Your task to perform on an android device: Open Chrome and go to settings Image 0: 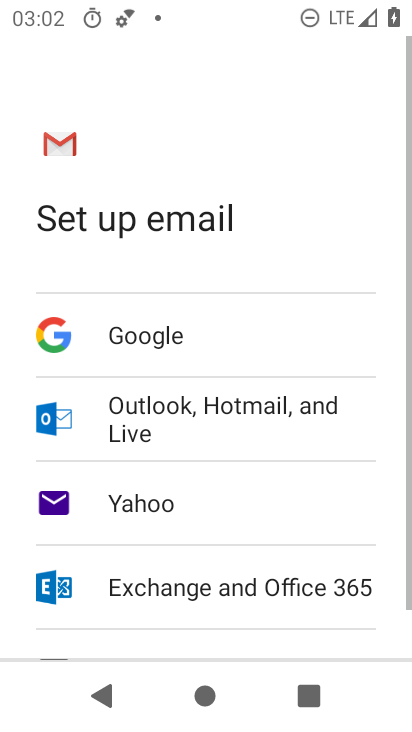
Step 0: press home button
Your task to perform on an android device: Open Chrome and go to settings Image 1: 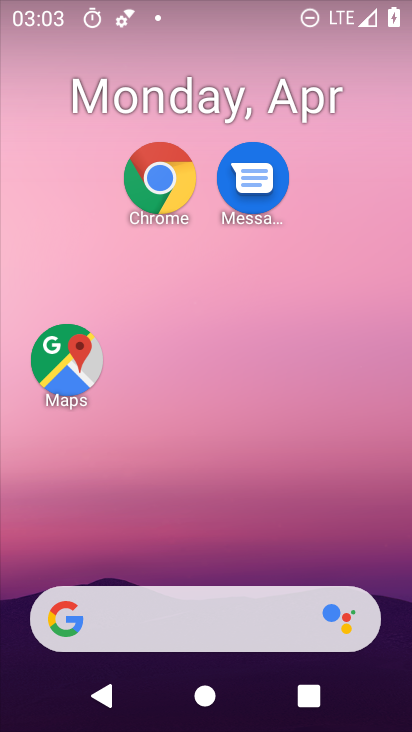
Step 1: drag from (300, 549) to (303, 4)
Your task to perform on an android device: Open Chrome and go to settings Image 2: 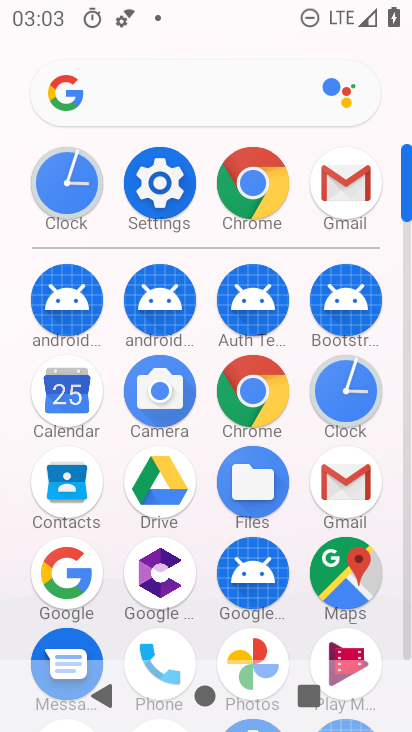
Step 2: click (239, 387)
Your task to perform on an android device: Open Chrome and go to settings Image 3: 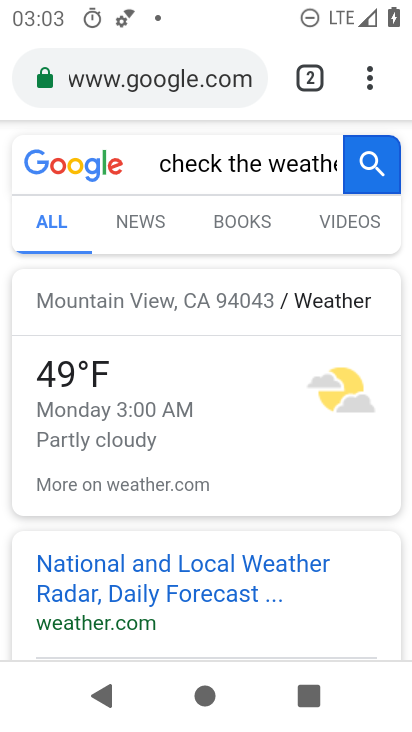
Step 3: task complete